Your task to perform on an android device: Go to eBay Image 0: 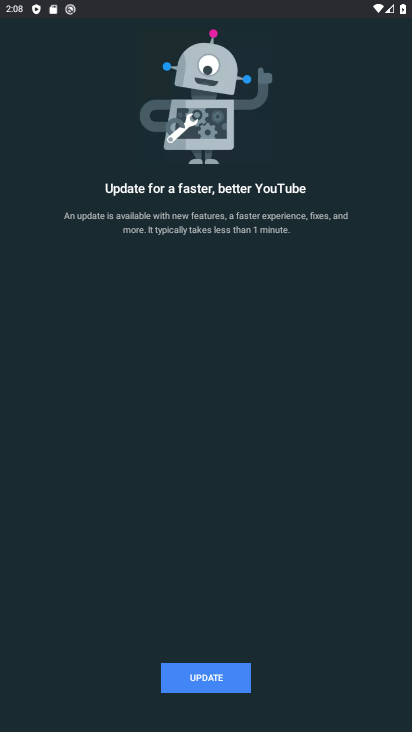
Step 0: press home button
Your task to perform on an android device: Go to eBay Image 1: 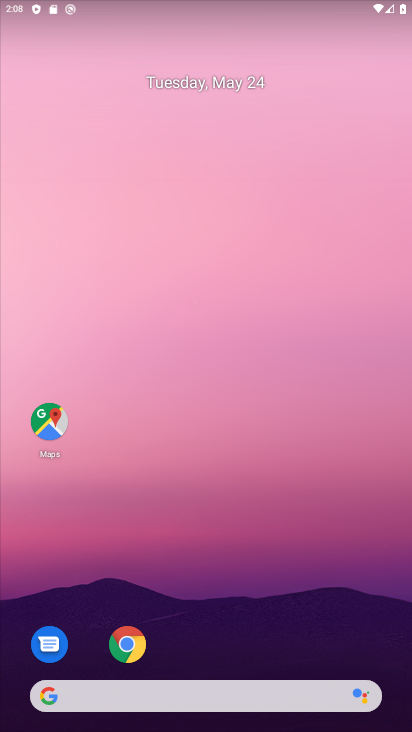
Step 1: drag from (225, 596) to (227, 31)
Your task to perform on an android device: Go to eBay Image 2: 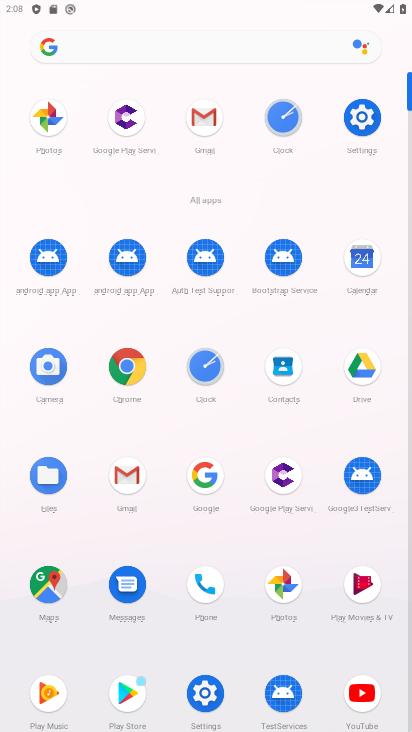
Step 2: click (207, 481)
Your task to perform on an android device: Go to eBay Image 3: 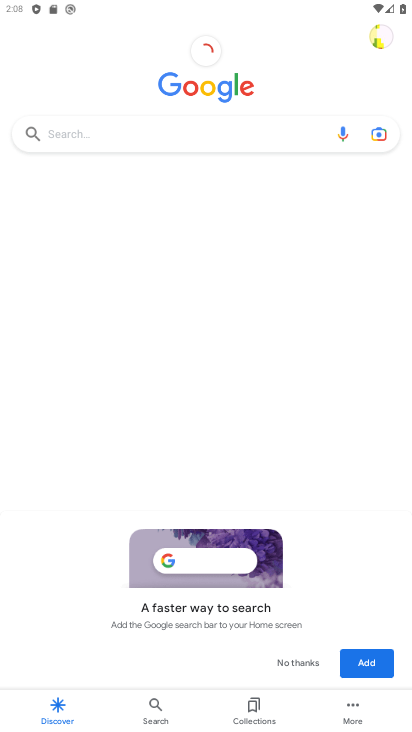
Step 3: click (175, 133)
Your task to perform on an android device: Go to eBay Image 4: 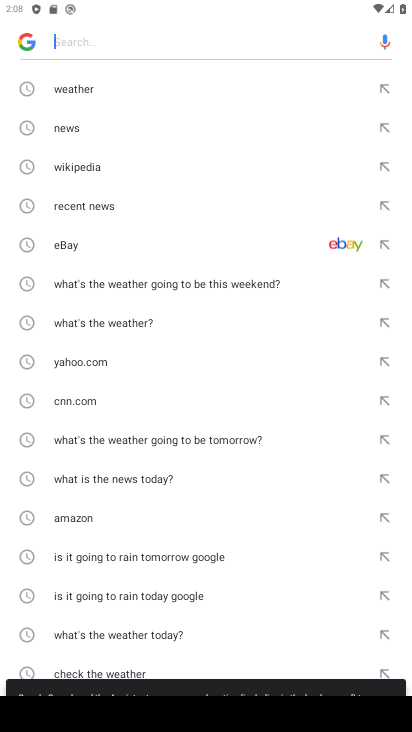
Step 4: click (139, 249)
Your task to perform on an android device: Go to eBay Image 5: 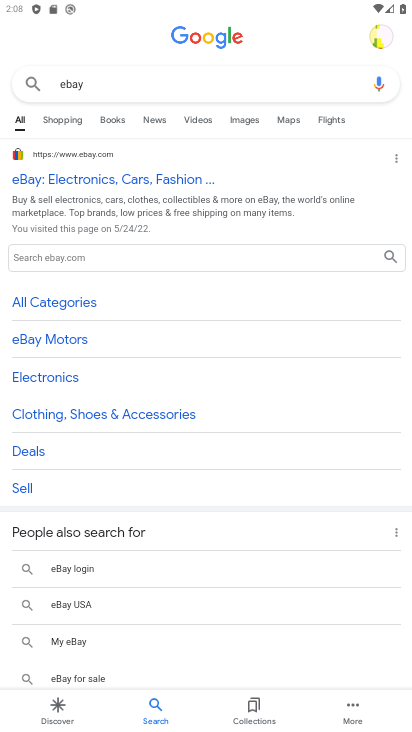
Step 5: task complete